Your task to perform on an android device: open a bookmark in the chrome app Image 0: 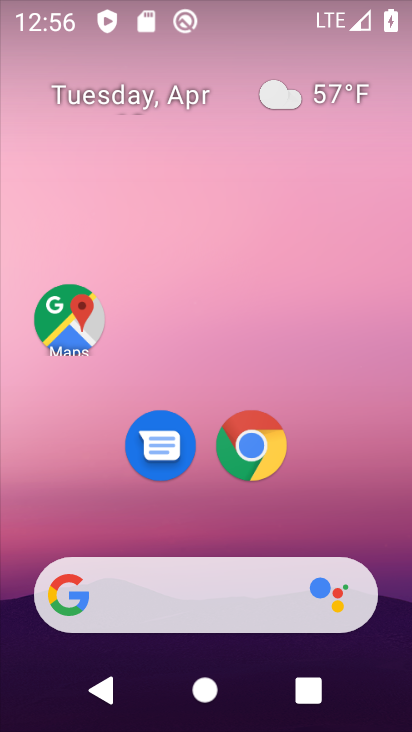
Step 0: click (269, 452)
Your task to perform on an android device: open a bookmark in the chrome app Image 1: 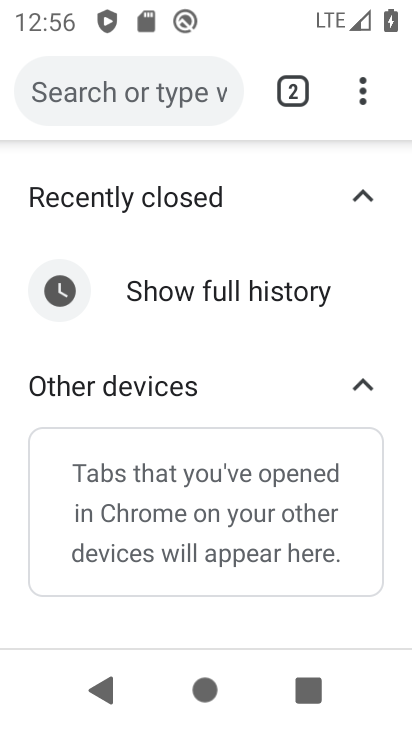
Step 1: click (365, 91)
Your task to perform on an android device: open a bookmark in the chrome app Image 2: 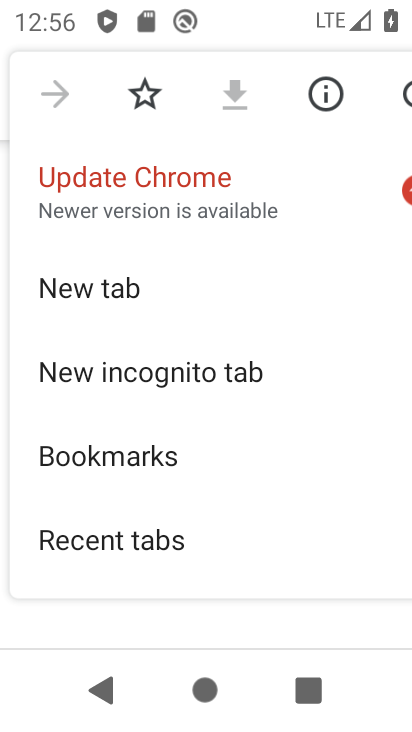
Step 2: click (137, 444)
Your task to perform on an android device: open a bookmark in the chrome app Image 3: 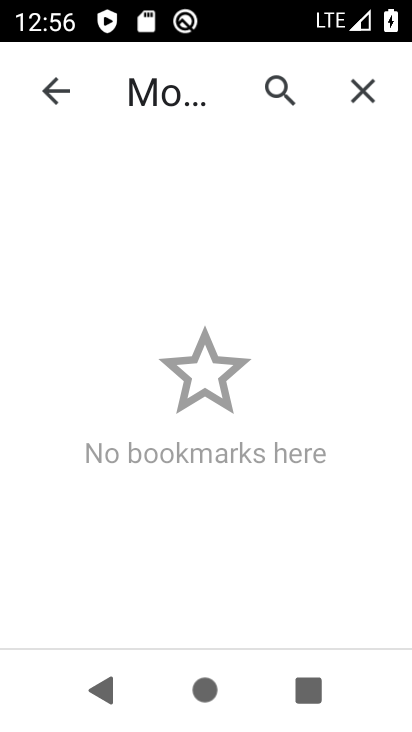
Step 3: task complete